Your task to perform on an android device: star an email in the gmail app Image 0: 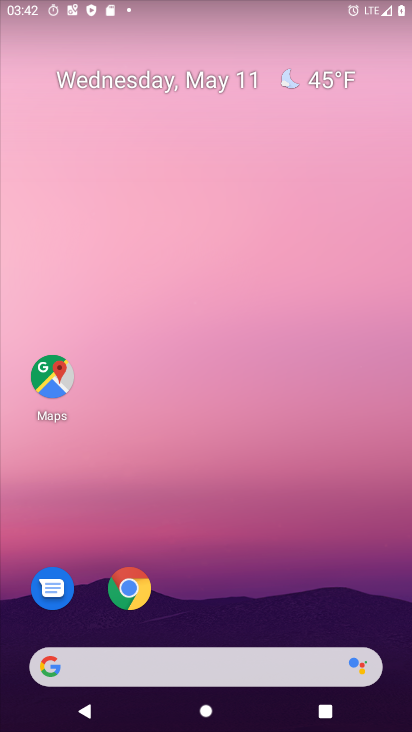
Step 0: drag from (210, 609) to (260, 253)
Your task to perform on an android device: star an email in the gmail app Image 1: 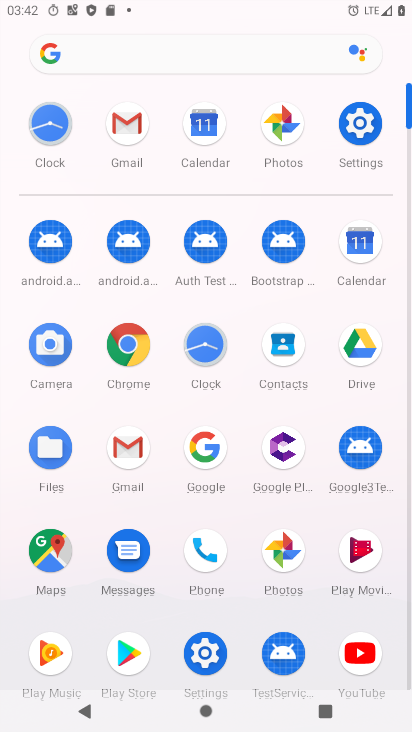
Step 1: click (147, 123)
Your task to perform on an android device: star an email in the gmail app Image 2: 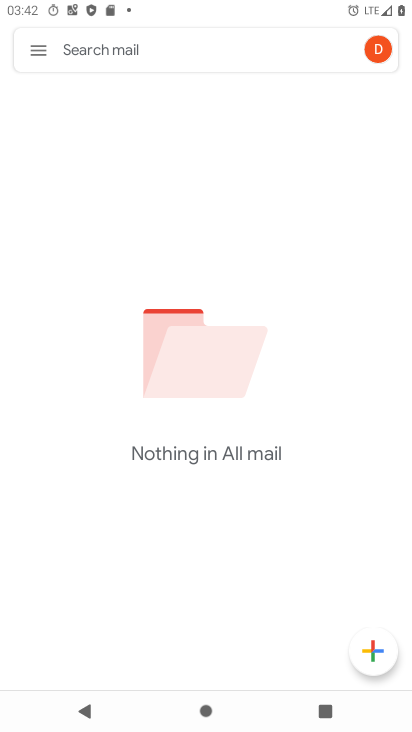
Step 2: click (46, 55)
Your task to perform on an android device: star an email in the gmail app Image 3: 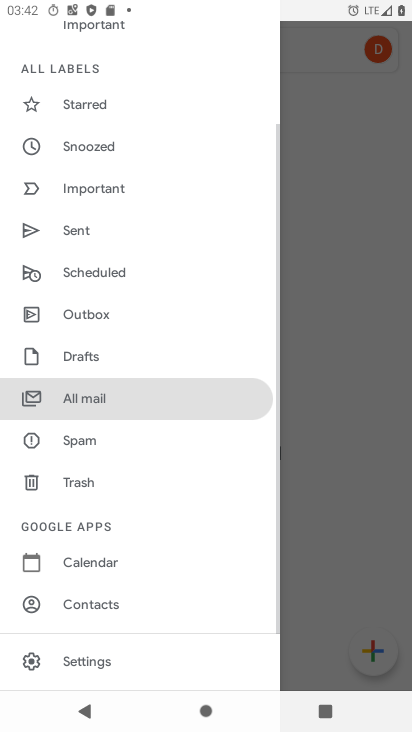
Step 3: click (114, 407)
Your task to perform on an android device: star an email in the gmail app Image 4: 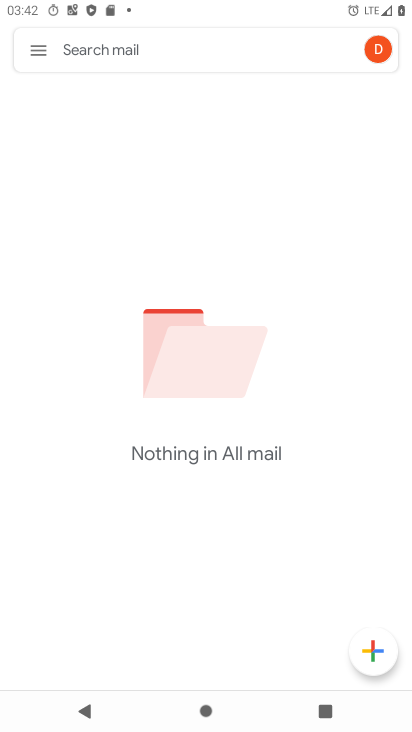
Step 4: click (41, 58)
Your task to perform on an android device: star an email in the gmail app Image 5: 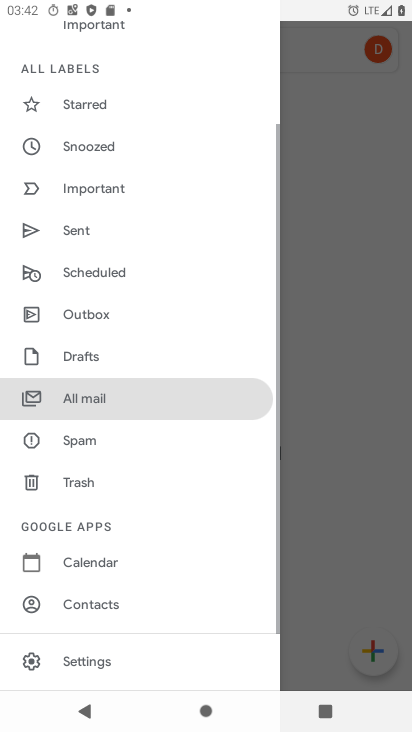
Step 5: drag from (182, 151) to (193, 500)
Your task to perform on an android device: star an email in the gmail app Image 6: 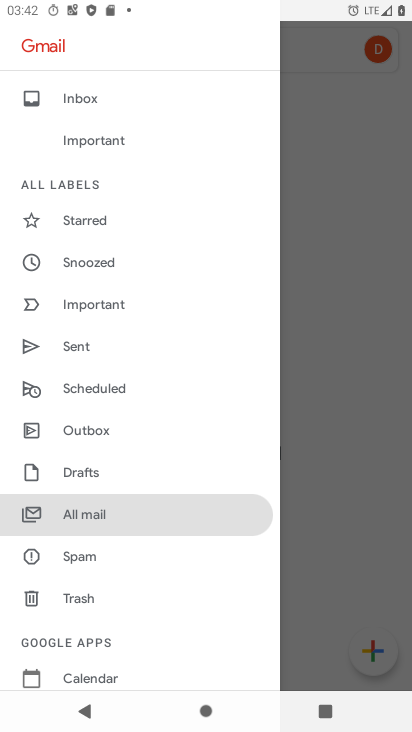
Step 6: click (80, 105)
Your task to perform on an android device: star an email in the gmail app Image 7: 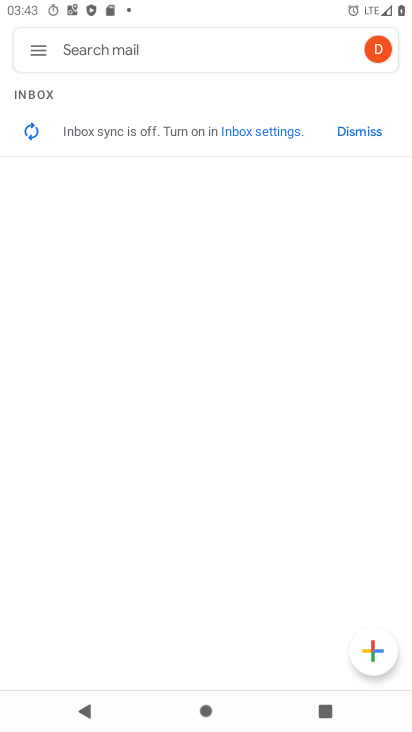
Step 7: task complete